Your task to perform on an android device: Open the map Image 0: 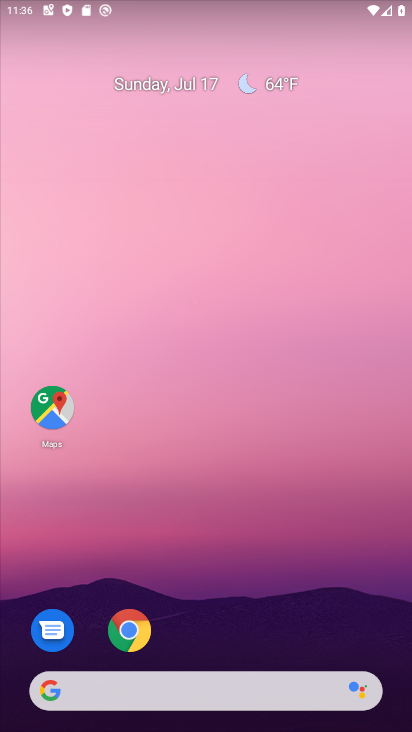
Step 0: click (52, 407)
Your task to perform on an android device: Open the map Image 1: 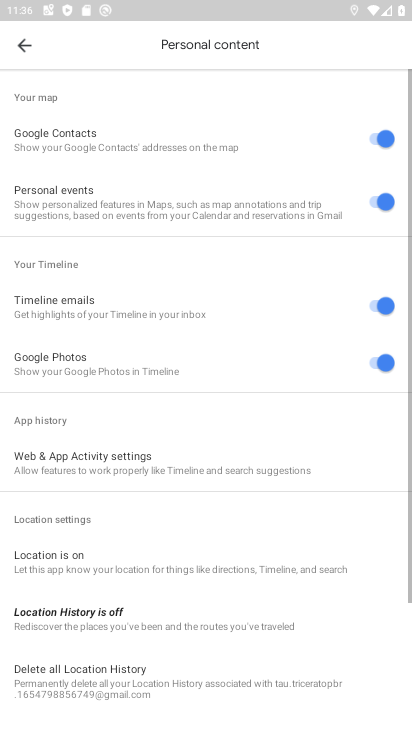
Step 1: task complete